Your task to perform on an android device: Turn on the flashlight Image 0: 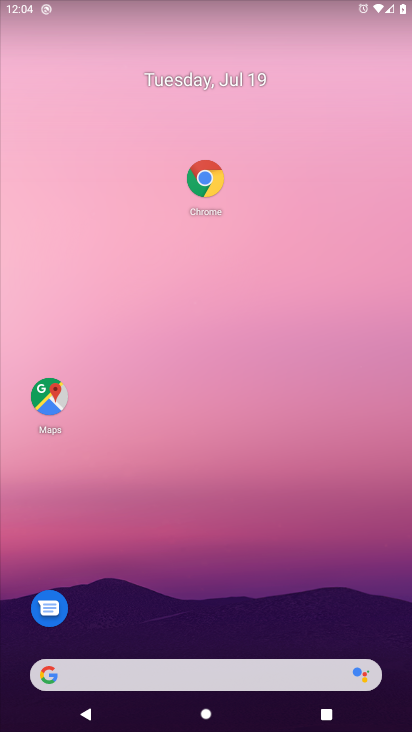
Step 0: drag from (25, 697) to (389, 59)
Your task to perform on an android device: Turn on the flashlight Image 1: 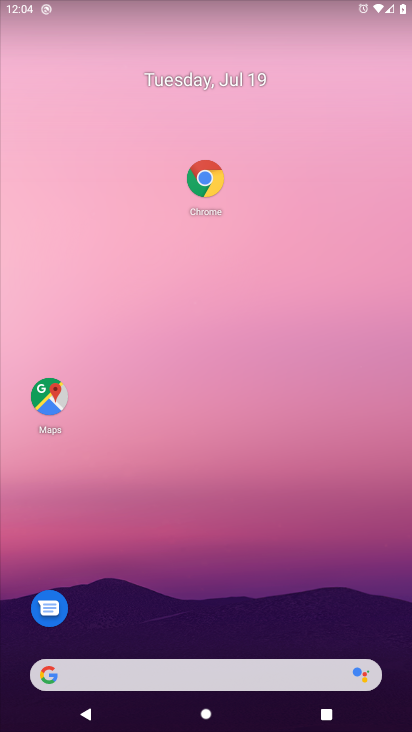
Step 1: drag from (44, 675) to (182, 57)
Your task to perform on an android device: Turn on the flashlight Image 2: 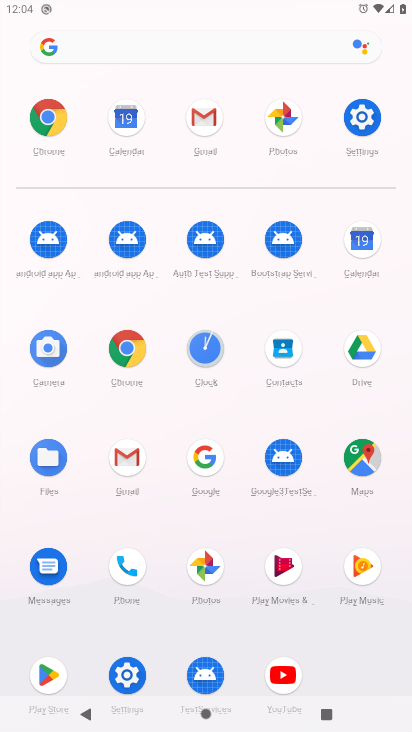
Step 2: click (138, 669)
Your task to perform on an android device: Turn on the flashlight Image 3: 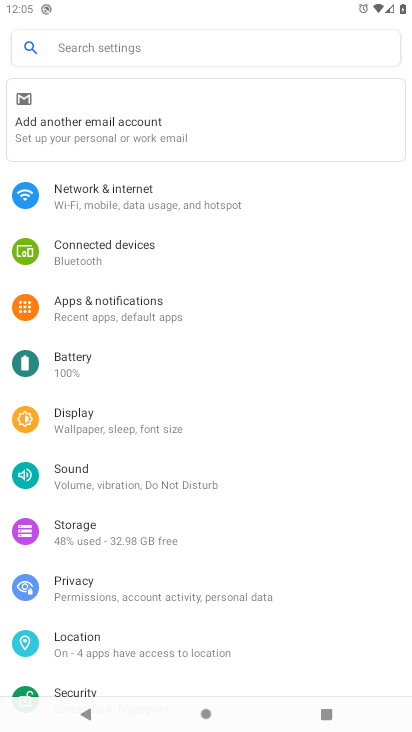
Step 3: click (96, 427)
Your task to perform on an android device: Turn on the flashlight Image 4: 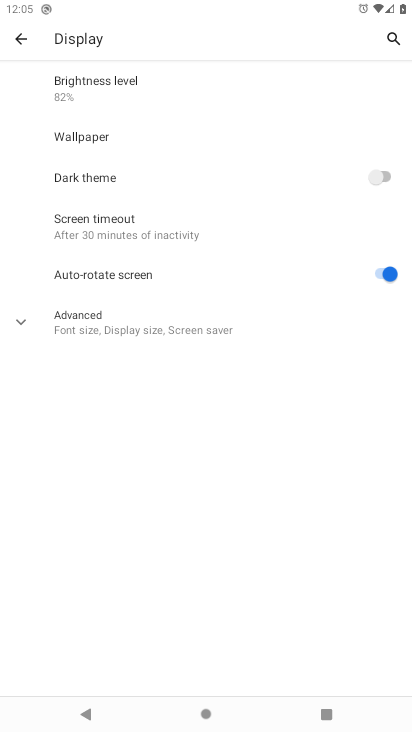
Step 4: click (136, 318)
Your task to perform on an android device: Turn on the flashlight Image 5: 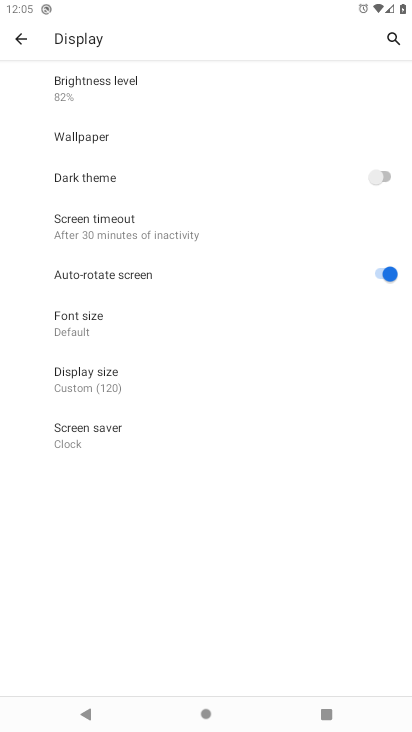
Step 5: task complete